Your task to perform on an android device: Go to Google maps Image 0: 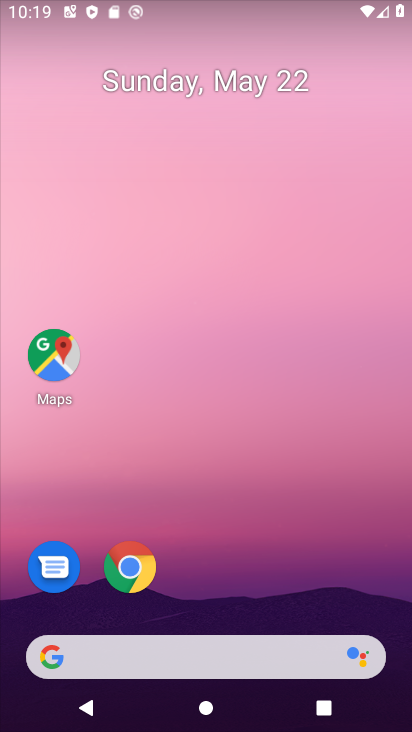
Step 0: click (63, 357)
Your task to perform on an android device: Go to Google maps Image 1: 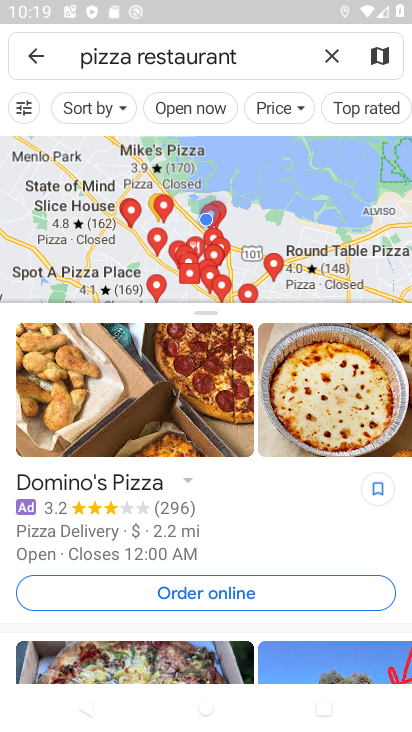
Step 1: task complete